Your task to perform on an android device: open wifi settings Image 0: 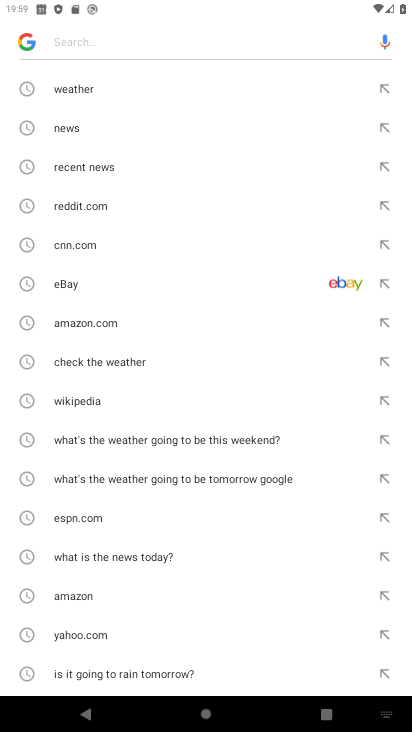
Step 0: press home button
Your task to perform on an android device: open wifi settings Image 1: 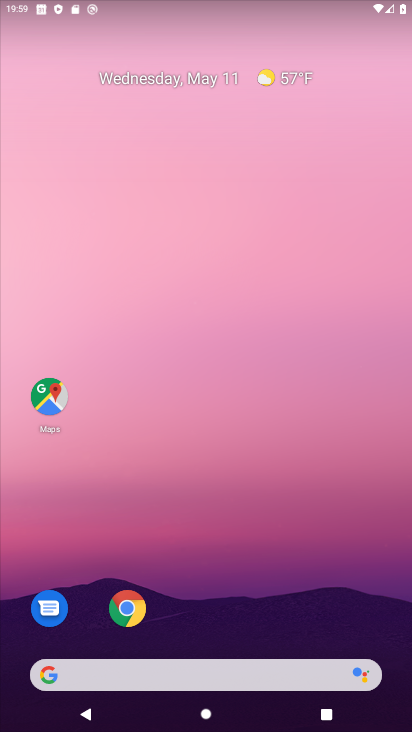
Step 1: drag from (231, 586) to (213, 41)
Your task to perform on an android device: open wifi settings Image 2: 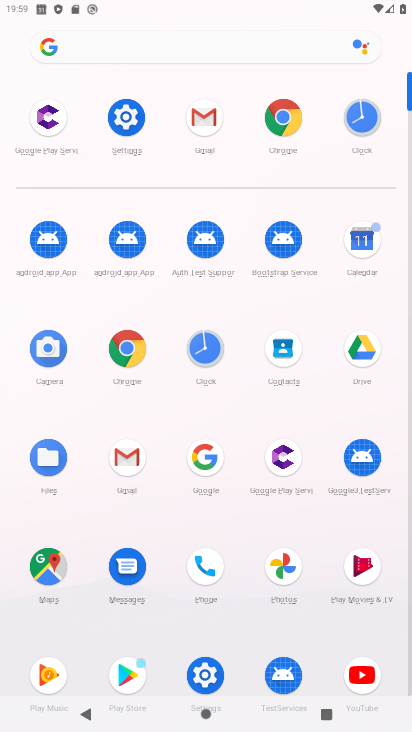
Step 2: click (124, 121)
Your task to perform on an android device: open wifi settings Image 3: 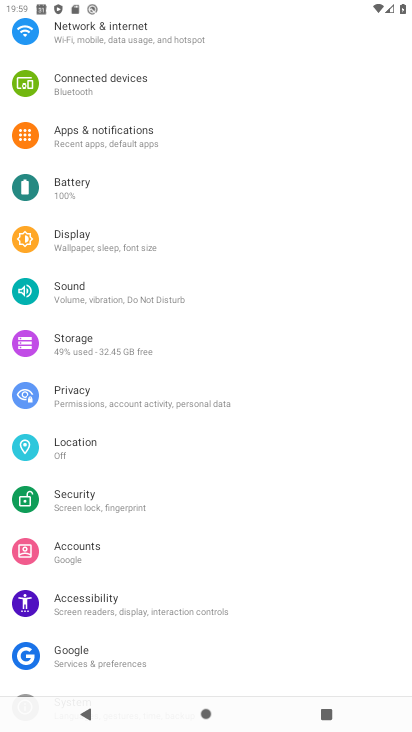
Step 3: click (146, 27)
Your task to perform on an android device: open wifi settings Image 4: 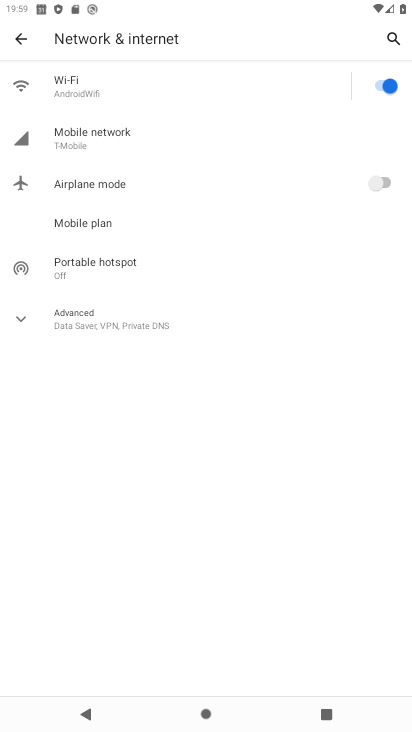
Step 4: click (130, 76)
Your task to perform on an android device: open wifi settings Image 5: 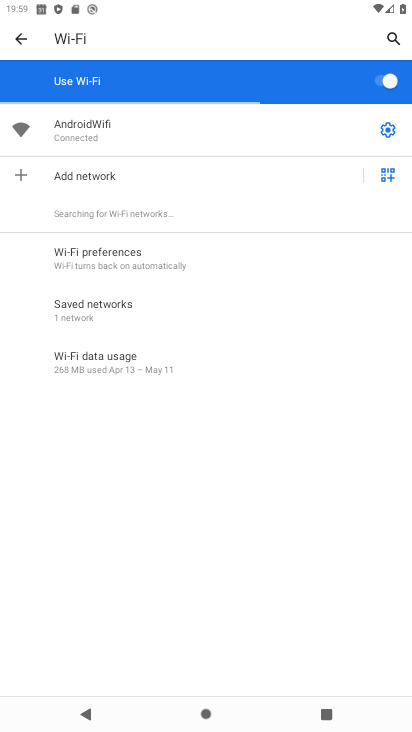
Step 5: task complete